Your task to perform on an android device: Turn off the flashlight Image 0: 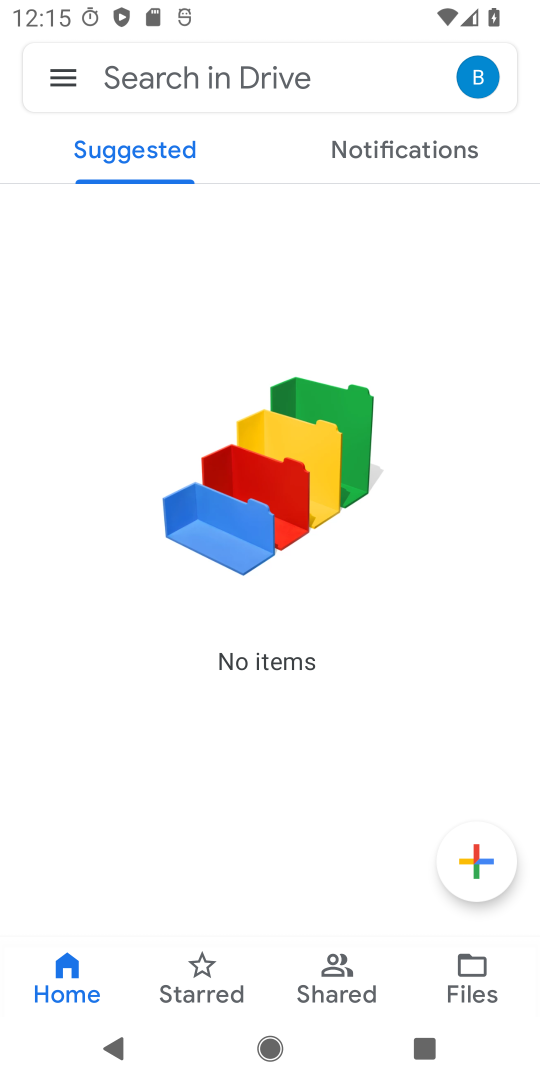
Step 0: press home button
Your task to perform on an android device: Turn off the flashlight Image 1: 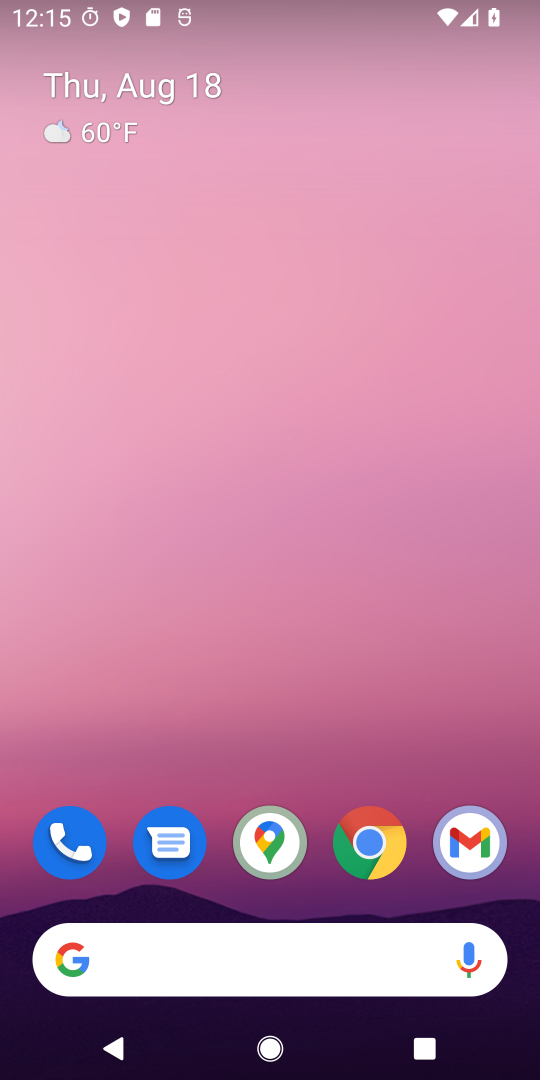
Step 1: drag from (340, 791) to (266, 33)
Your task to perform on an android device: Turn off the flashlight Image 2: 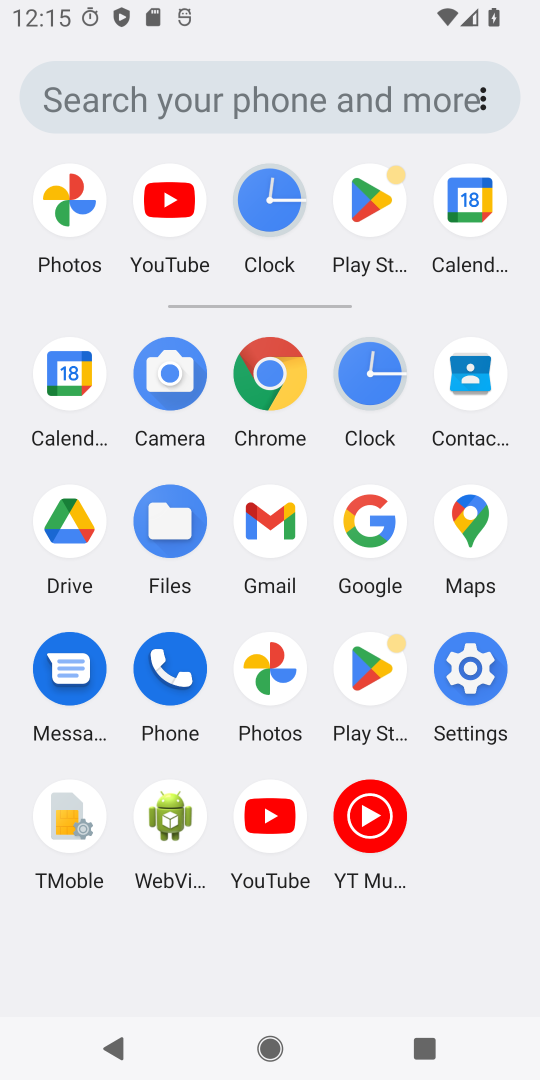
Step 2: click (467, 642)
Your task to perform on an android device: Turn off the flashlight Image 3: 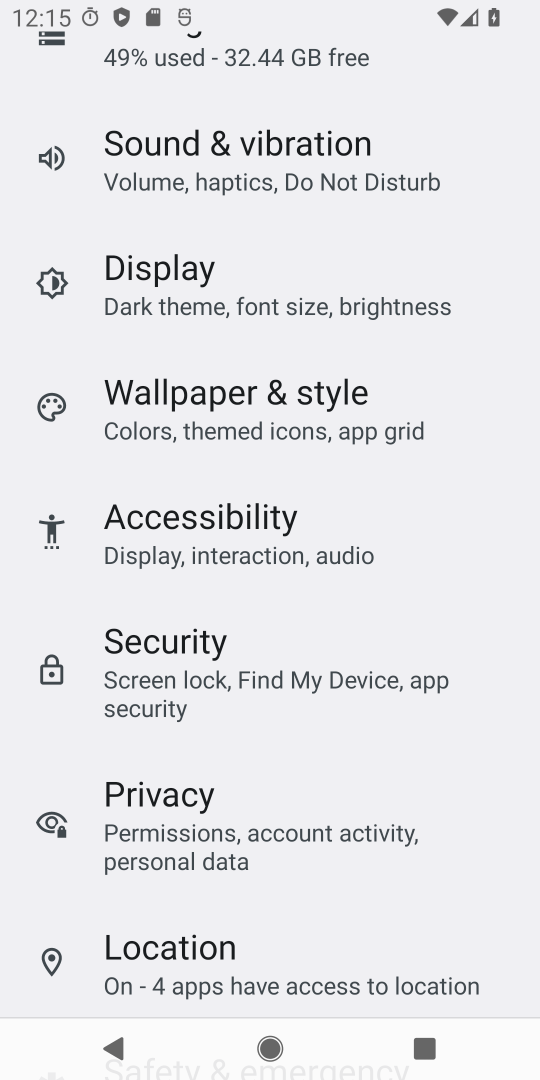
Step 3: task complete